Your task to perform on an android device: Turn on the flashlight Image 0: 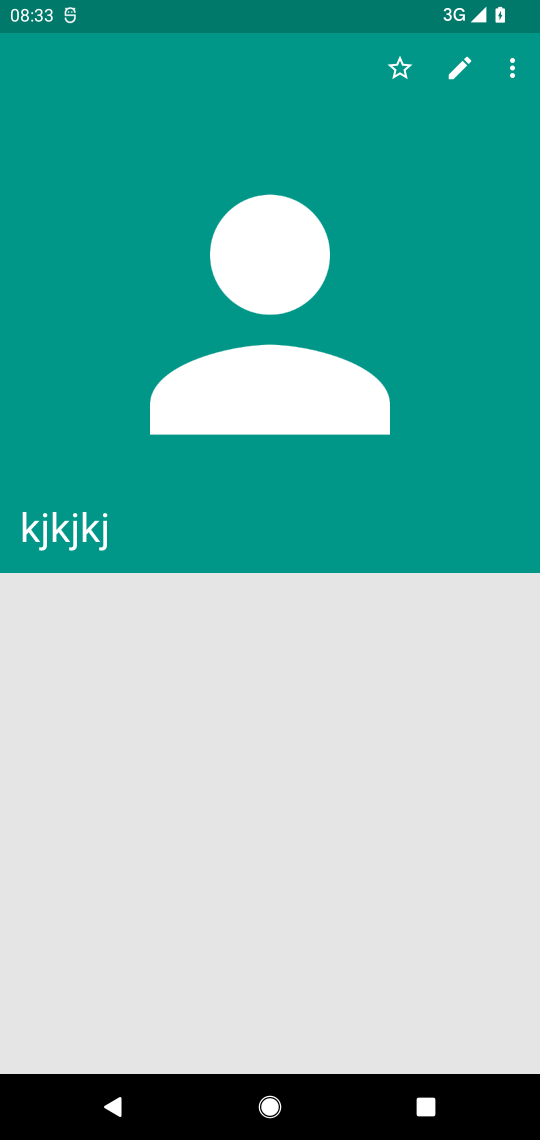
Step 0: press home button
Your task to perform on an android device: Turn on the flashlight Image 1: 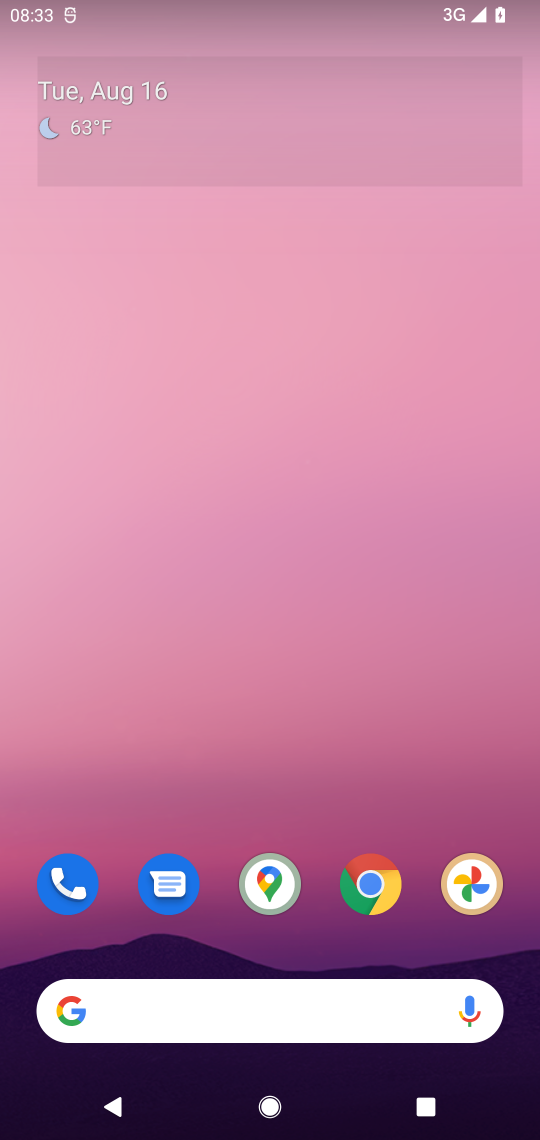
Step 1: drag from (316, 674) to (348, 133)
Your task to perform on an android device: Turn on the flashlight Image 2: 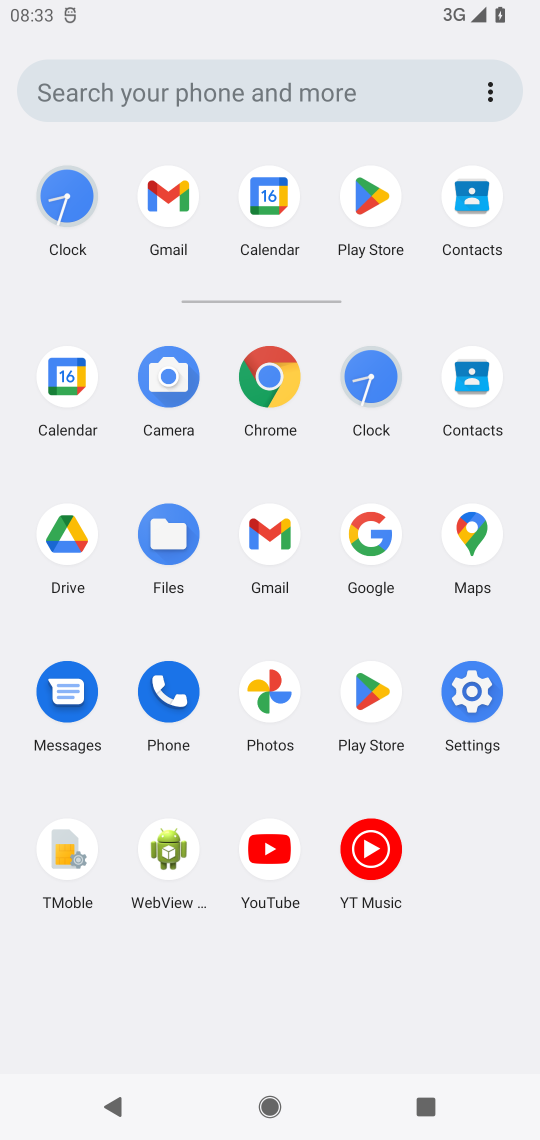
Step 2: click (447, 689)
Your task to perform on an android device: Turn on the flashlight Image 3: 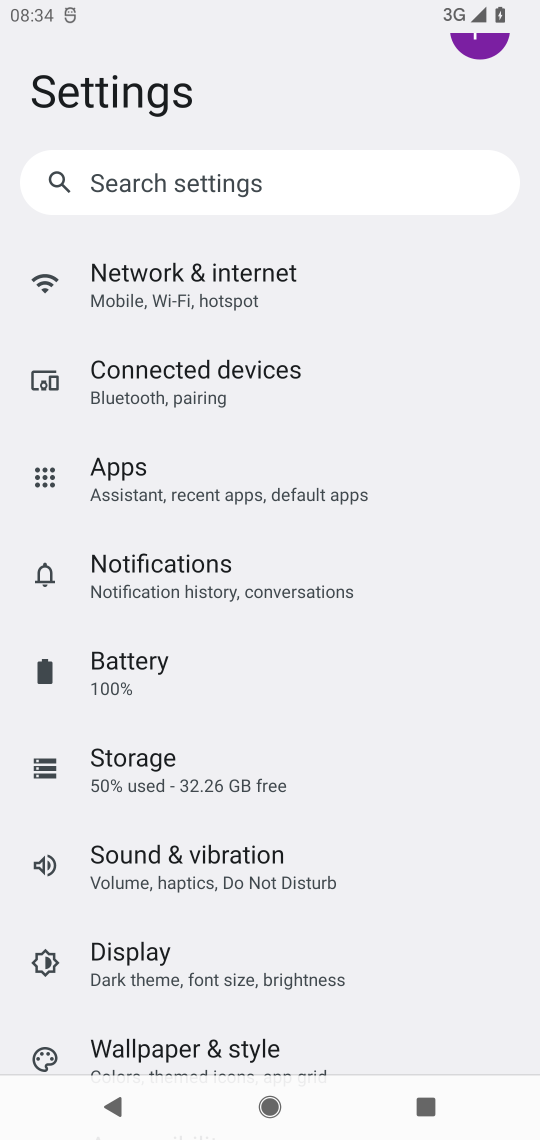
Step 3: click (265, 297)
Your task to perform on an android device: Turn on the flashlight Image 4: 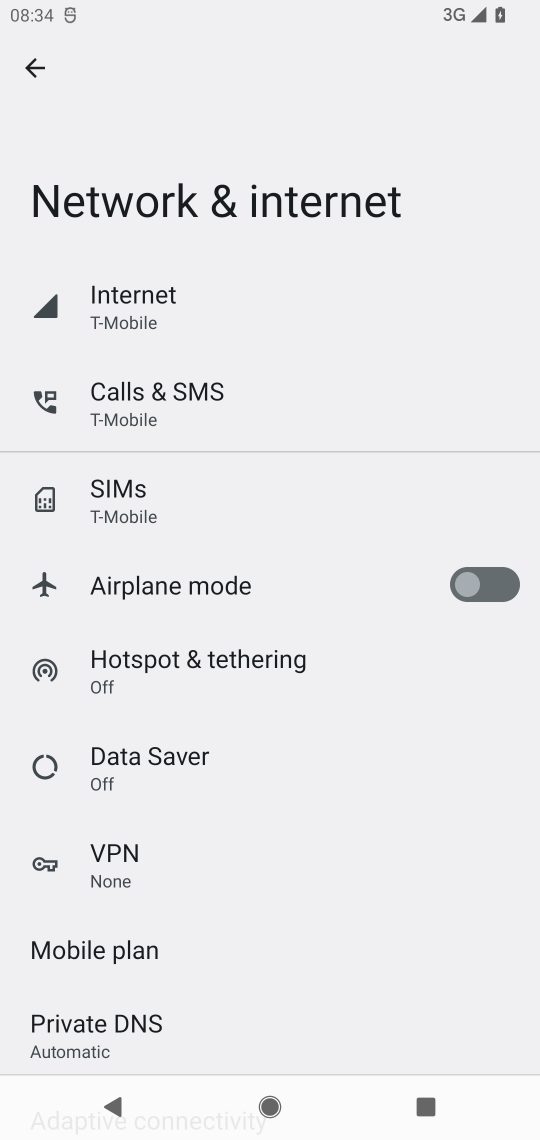
Step 4: drag from (241, 969) to (259, 561)
Your task to perform on an android device: Turn on the flashlight Image 5: 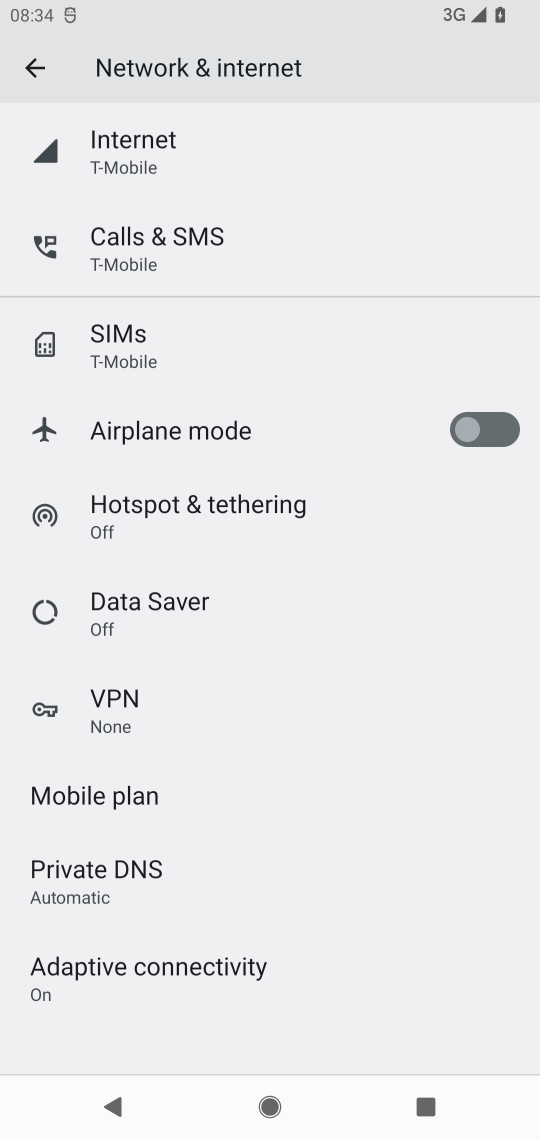
Step 5: drag from (332, 0) to (243, 1006)
Your task to perform on an android device: Turn on the flashlight Image 6: 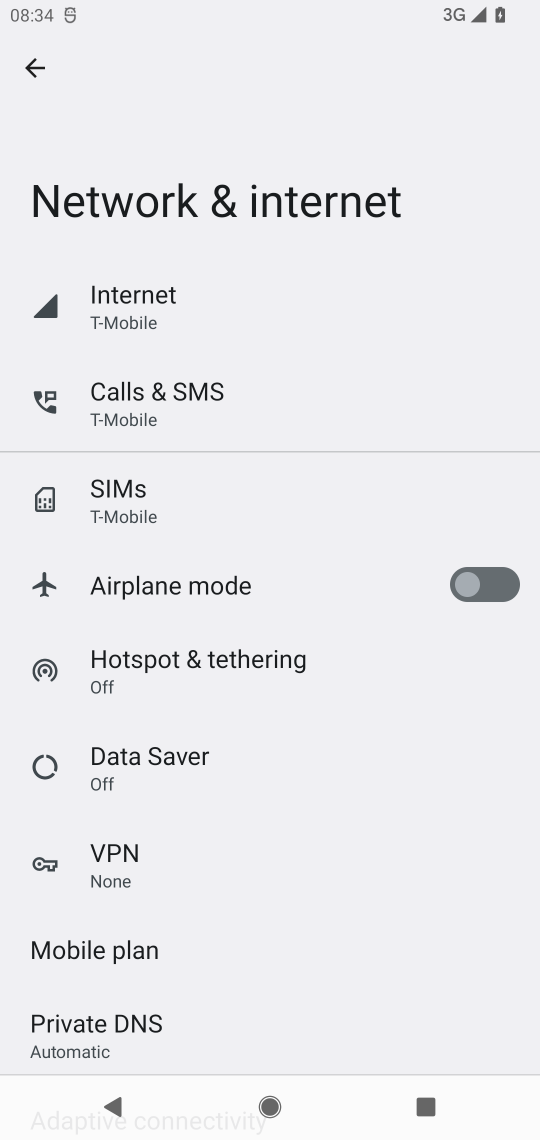
Step 6: drag from (326, 0) to (250, 828)
Your task to perform on an android device: Turn on the flashlight Image 7: 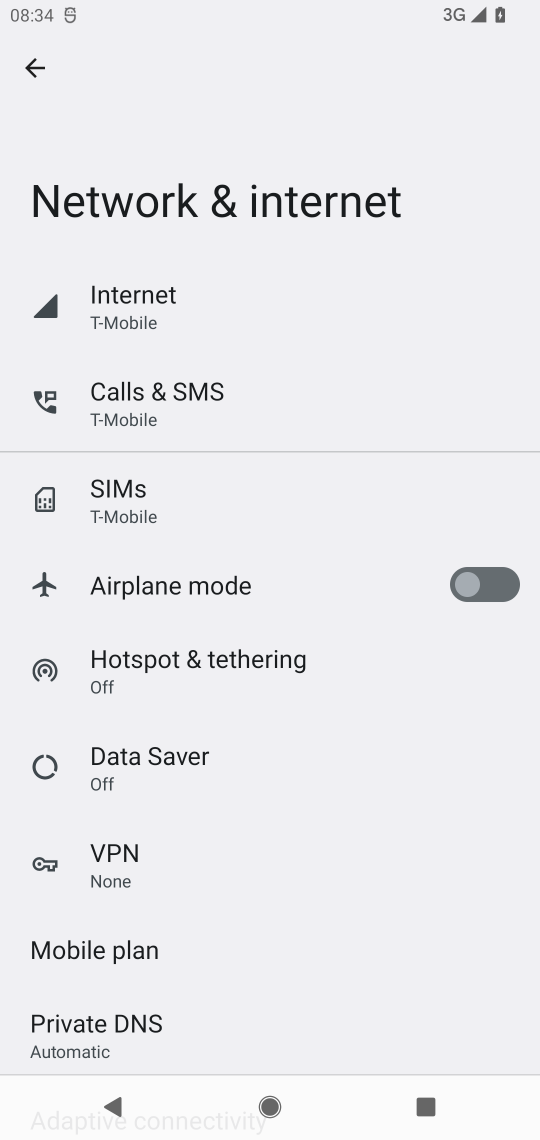
Step 7: press home button
Your task to perform on an android device: Turn on the flashlight Image 8: 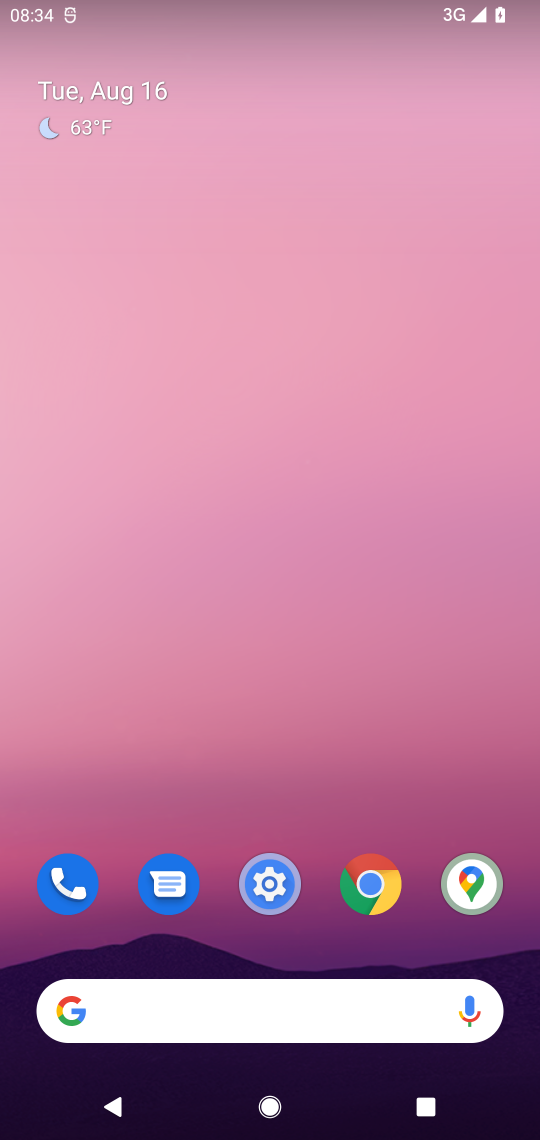
Step 8: drag from (281, 24) to (289, 649)
Your task to perform on an android device: Turn on the flashlight Image 9: 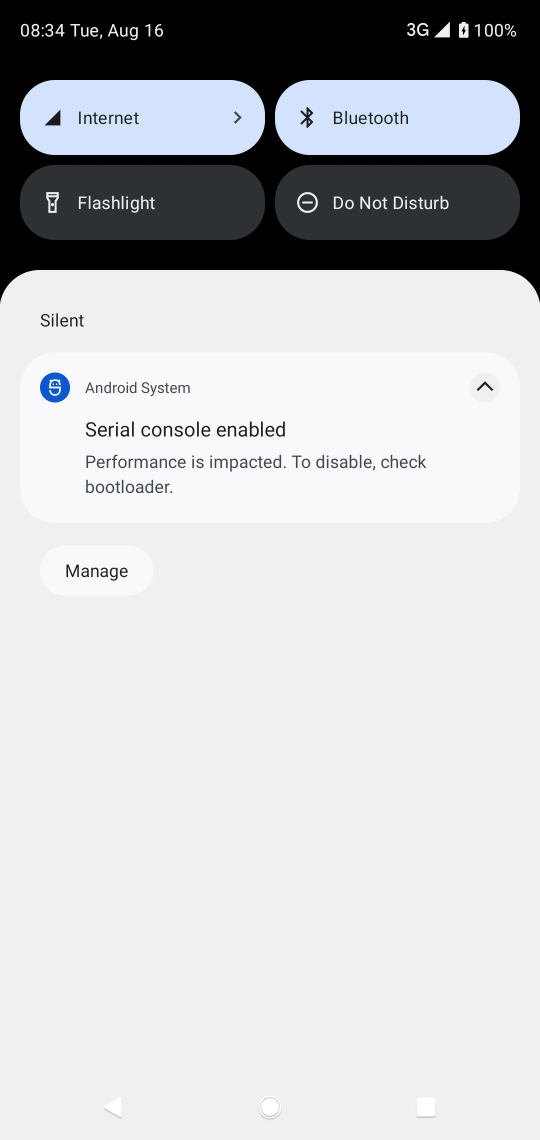
Step 9: click (126, 204)
Your task to perform on an android device: Turn on the flashlight Image 10: 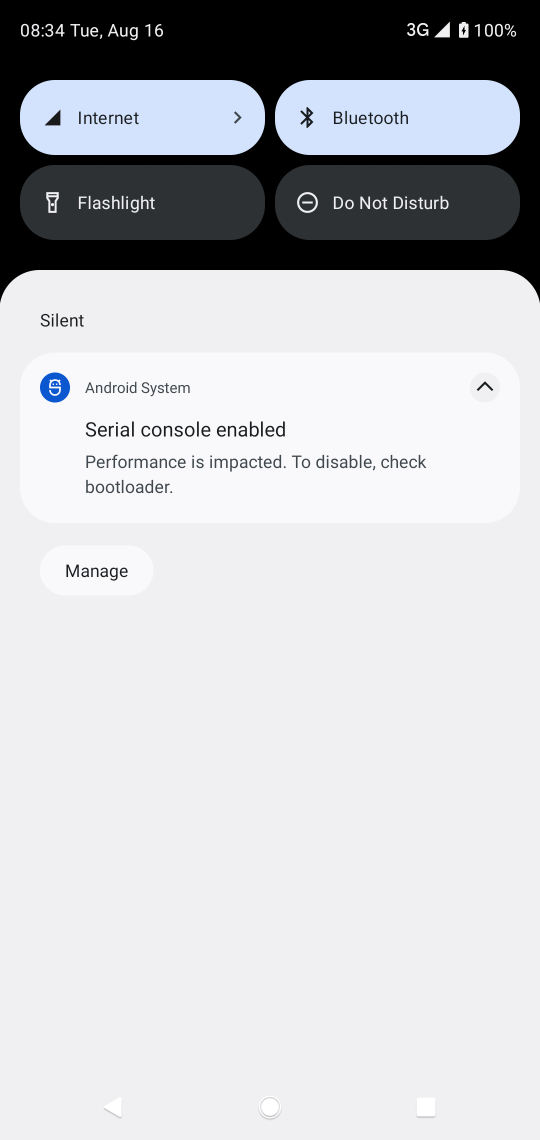
Step 10: task complete